Your task to perform on an android device: star an email in the gmail app Image 0: 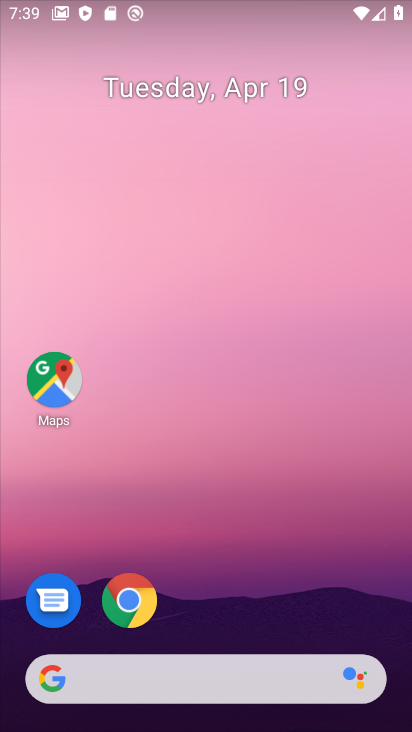
Step 0: drag from (255, 618) to (242, 77)
Your task to perform on an android device: star an email in the gmail app Image 1: 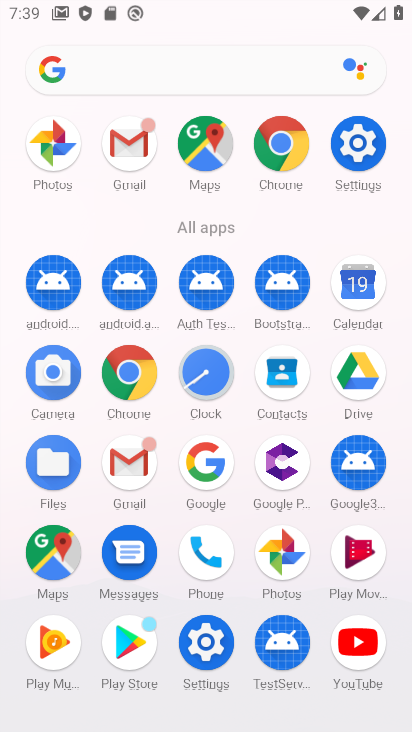
Step 1: click (124, 459)
Your task to perform on an android device: star an email in the gmail app Image 2: 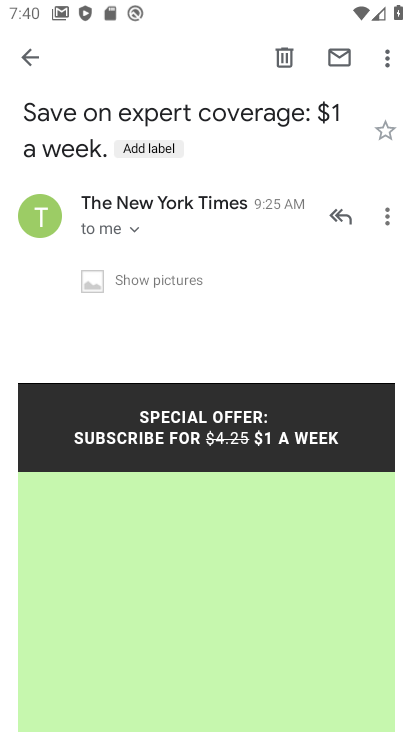
Step 2: click (376, 129)
Your task to perform on an android device: star an email in the gmail app Image 3: 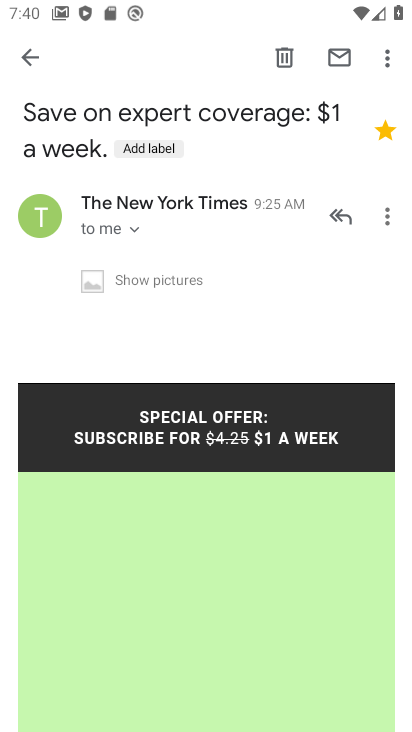
Step 3: task complete